Your task to perform on an android device: change the clock display to show seconds Image 0: 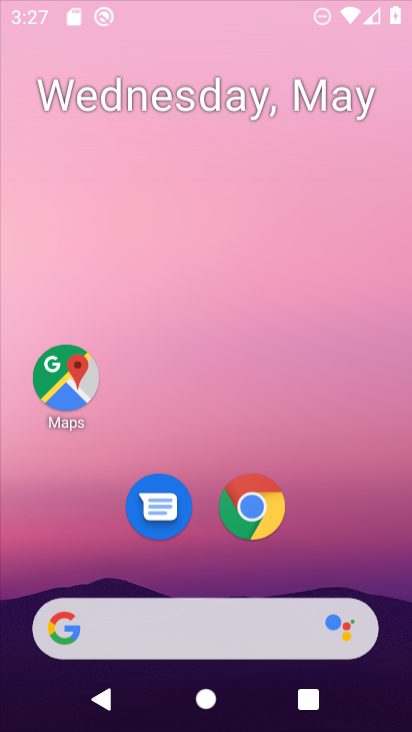
Step 0: click (184, 646)
Your task to perform on an android device: change the clock display to show seconds Image 1: 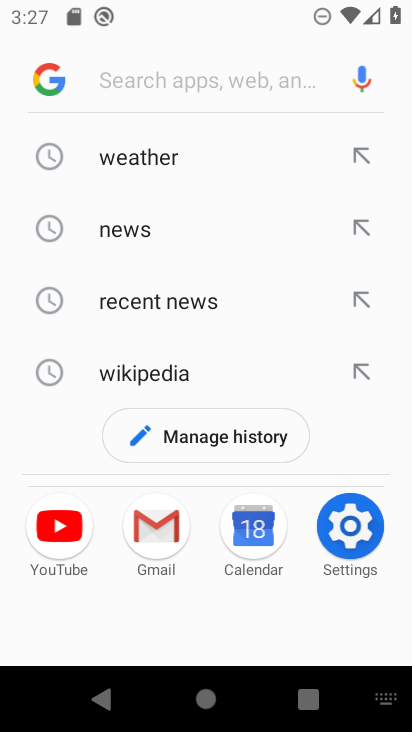
Step 1: click (137, 238)
Your task to perform on an android device: change the clock display to show seconds Image 2: 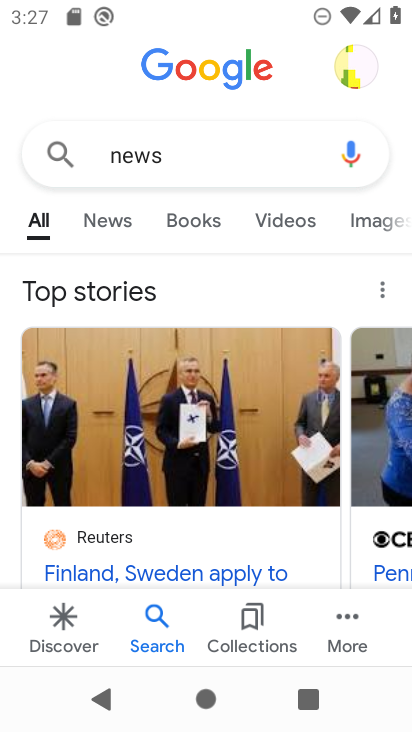
Step 2: task complete